Your task to perform on an android device: add a contact in the contacts app Image 0: 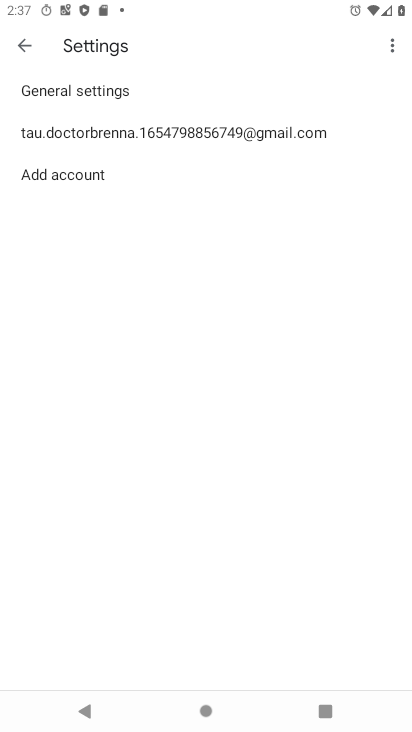
Step 0: press home button
Your task to perform on an android device: add a contact in the contacts app Image 1: 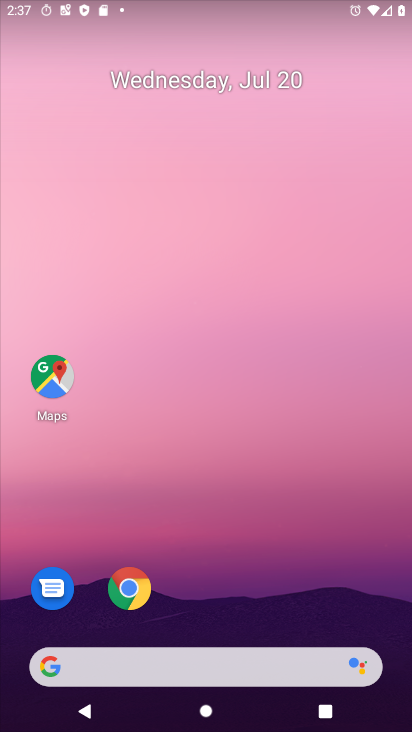
Step 1: drag from (303, 534) to (339, 61)
Your task to perform on an android device: add a contact in the contacts app Image 2: 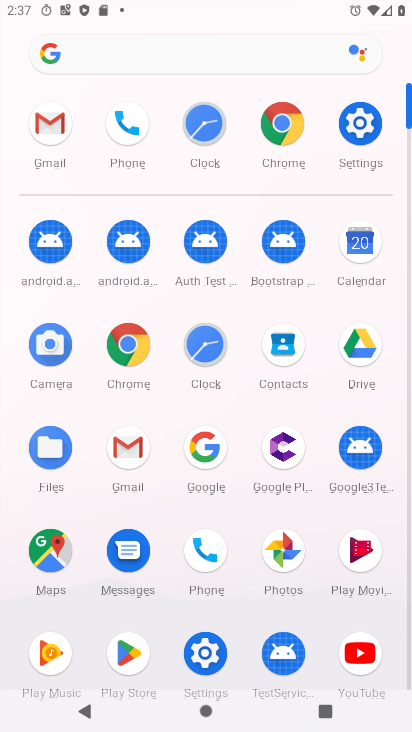
Step 2: click (210, 558)
Your task to perform on an android device: add a contact in the contacts app Image 3: 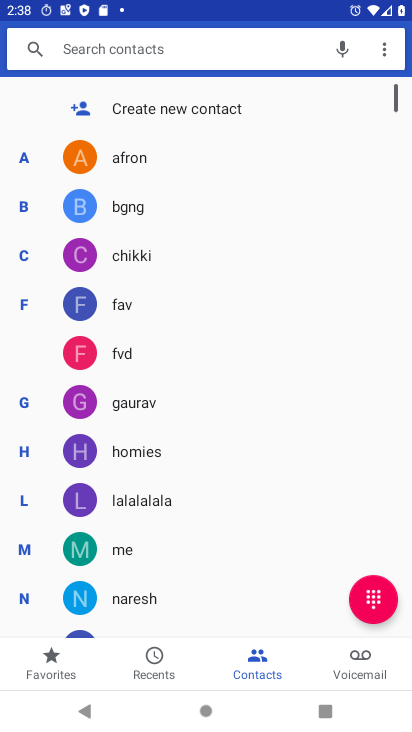
Step 3: task complete